Your task to perform on an android device: What's the weather? Image 0: 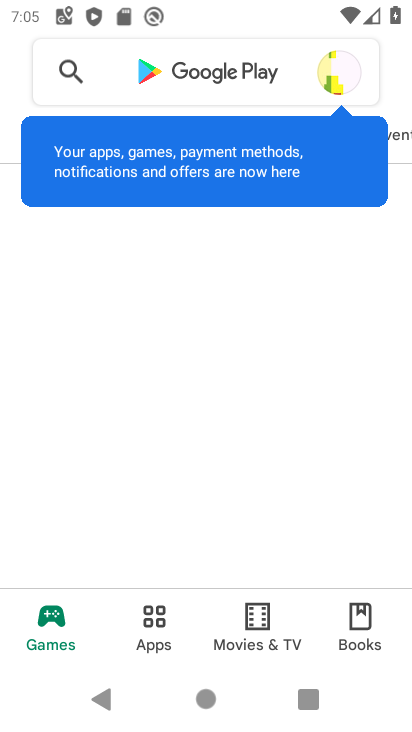
Step 0: press home button
Your task to perform on an android device: What's the weather? Image 1: 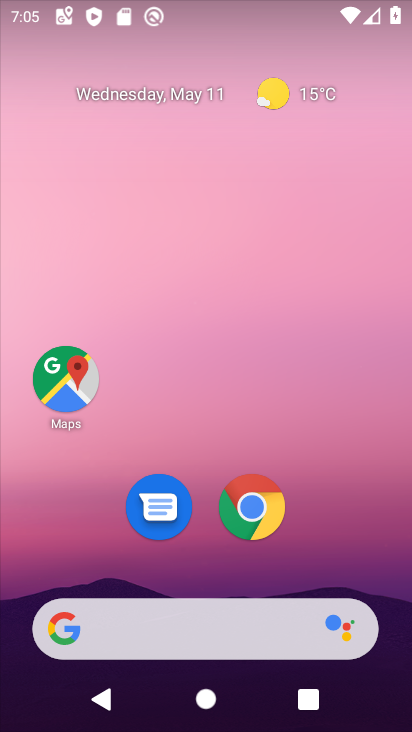
Step 1: drag from (265, 578) to (239, 214)
Your task to perform on an android device: What's the weather? Image 2: 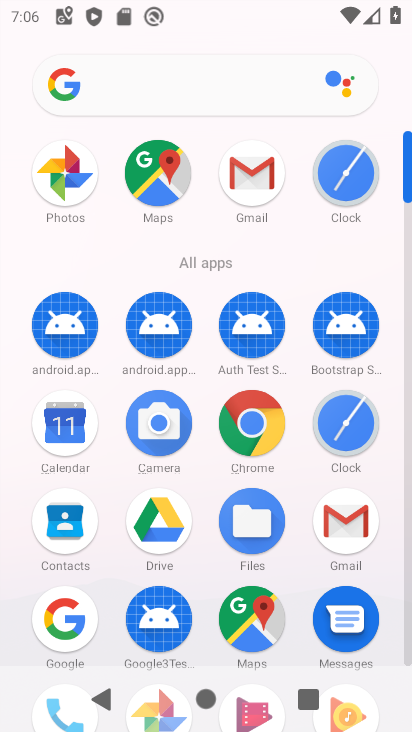
Step 2: click (123, 104)
Your task to perform on an android device: What's the weather? Image 3: 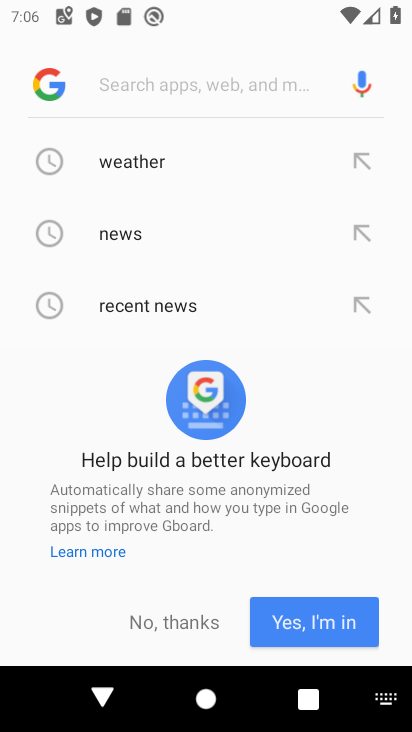
Step 3: click (171, 629)
Your task to perform on an android device: What's the weather? Image 4: 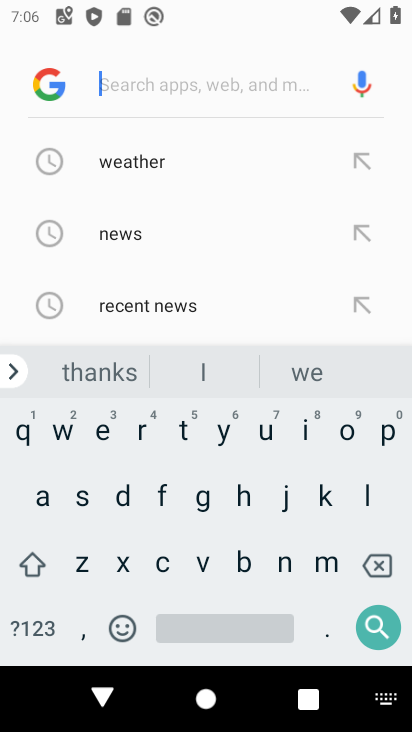
Step 4: click (104, 161)
Your task to perform on an android device: What's the weather? Image 5: 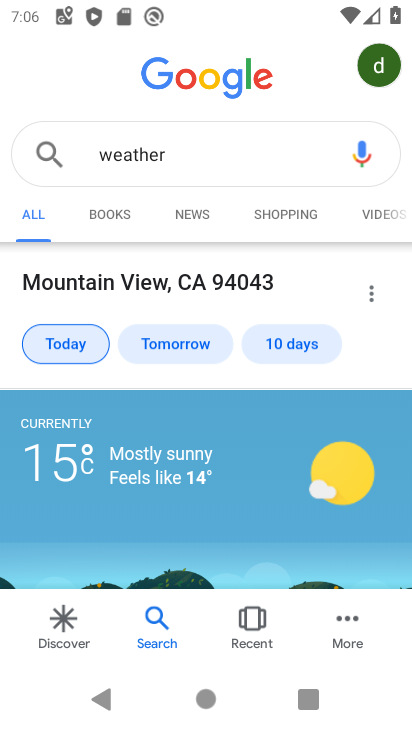
Step 5: task complete